Your task to perform on an android device: turn on data saver in the chrome app Image 0: 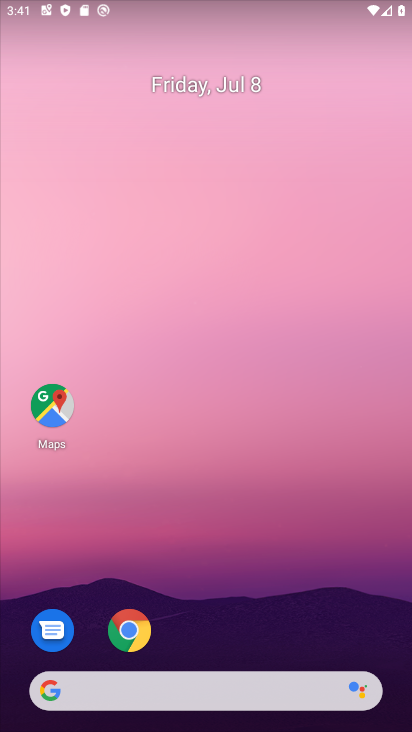
Step 0: drag from (232, 628) to (240, 225)
Your task to perform on an android device: turn on data saver in the chrome app Image 1: 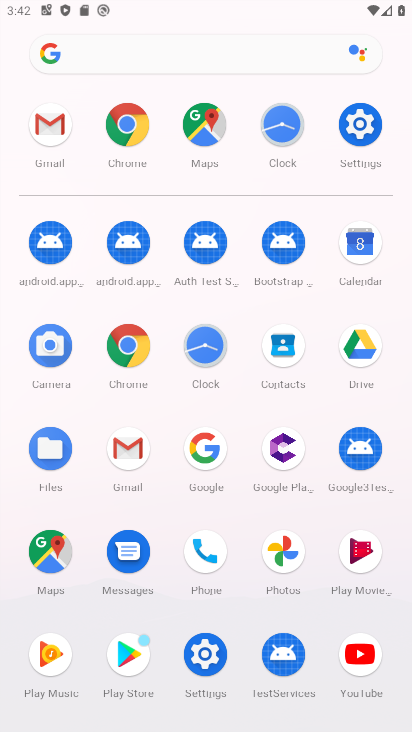
Step 1: click (123, 123)
Your task to perform on an android device: turn on data saver in the chrome app Image 2: 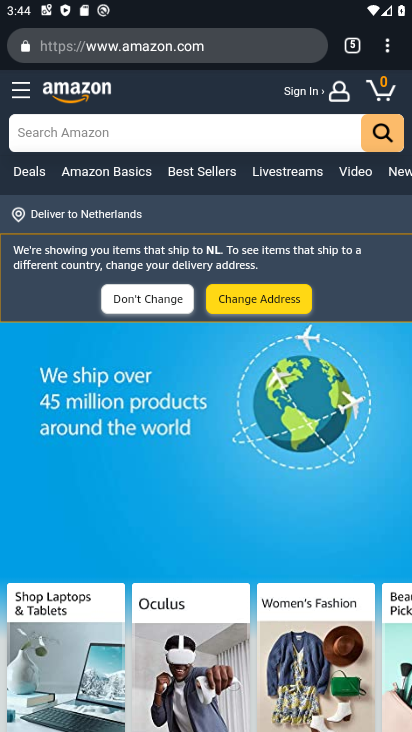
Step 2: click (388, 48)
Your task to perform on an android device: turn on data saver in the chrome app Image 3: 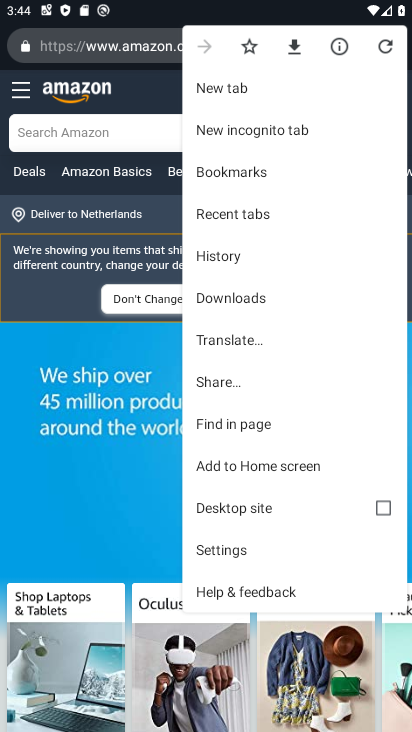
Step 3: click (274, 538)
Your task to perform on an android device: turn on data saver in the chrome app Image 4: 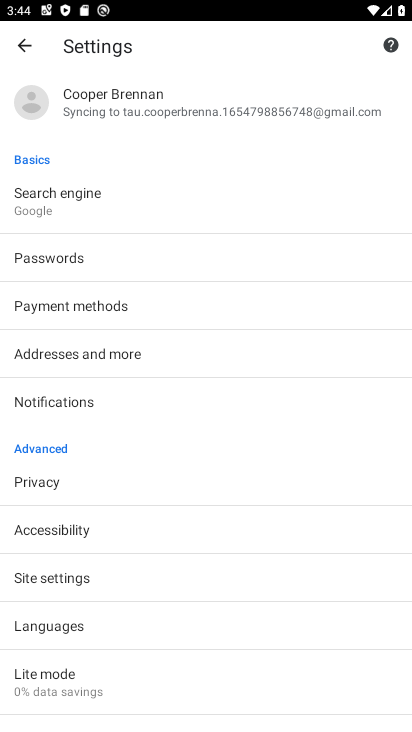
Step 4: click (188, 588)
Your task to perform on an android device: turn on data saver in the chrome app Image 5: 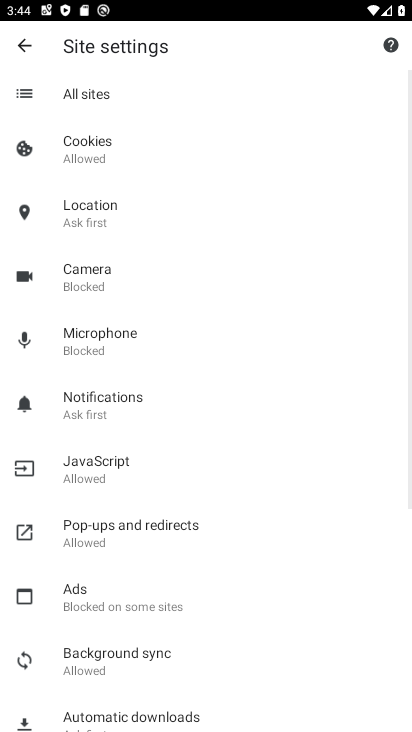
Step 5: click (26, 62)
Your task to perform on an android device: turn on data saver in the chrome app Image 6: 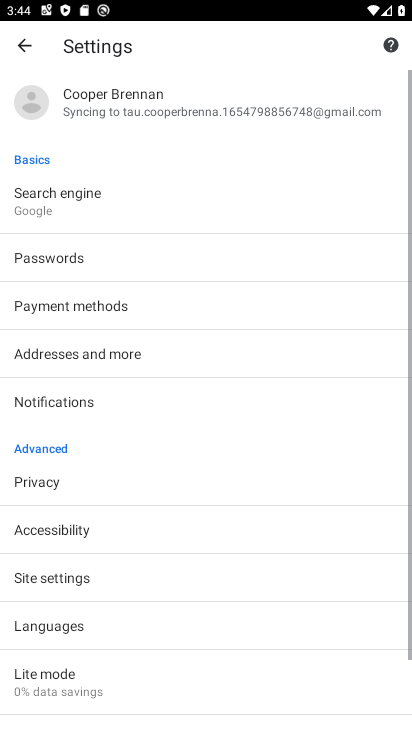
Step 6: click (129, 668)
Your task to perform on an android device: turn on data saver in the chrome app Image 7: 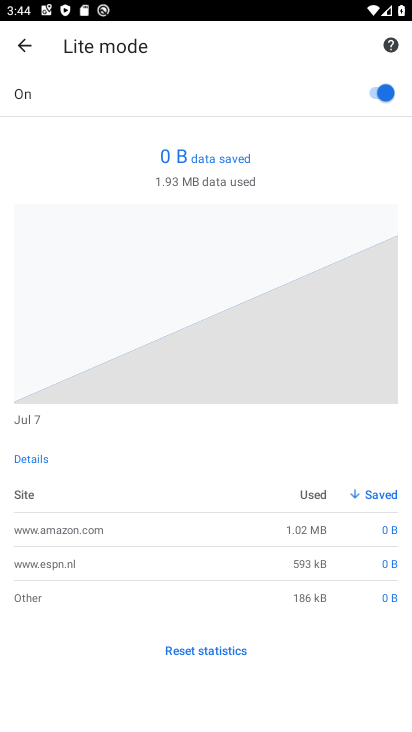
Step 7: task complete